Your task to perform on an android device: Show me productivity apps on the Play Store Image 0: 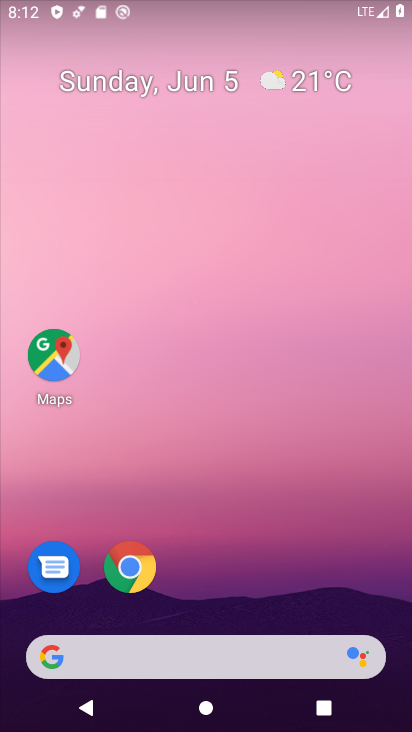
Step 0: drag from (207, 630) to (207, 327)
Your task to perform on an android device: Show me productivity apps on the Play Store Image 1: 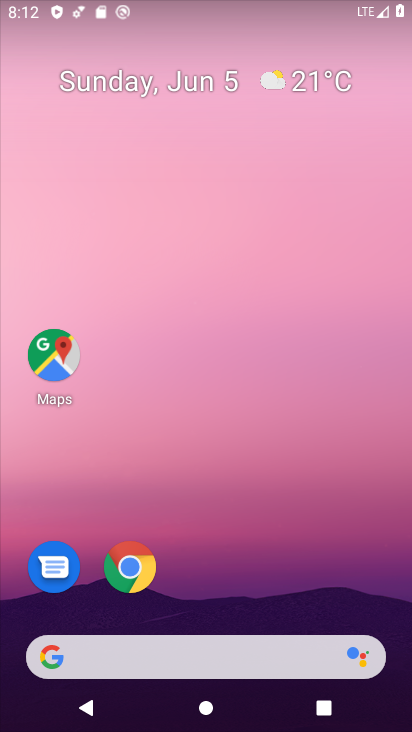
Step 1: drag from (206, 635) to (211, 258)
Your task to perform on an android device: Show me productivity apps on the Play Store Image 2: 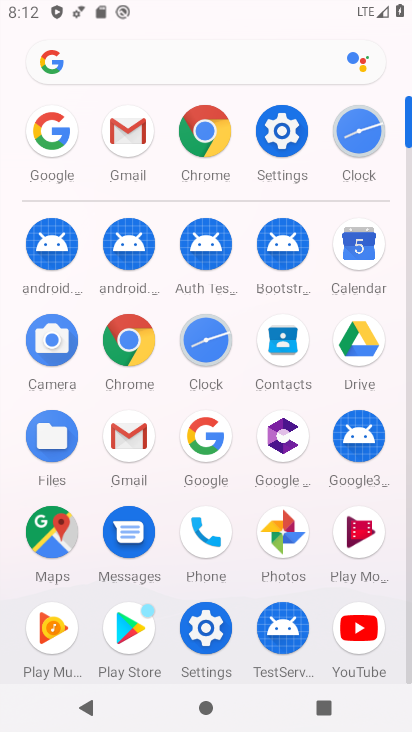
Step 2: click (132, 634)
Your task to perform on an android device: Show me productivity apps on the Play Store Image 3: 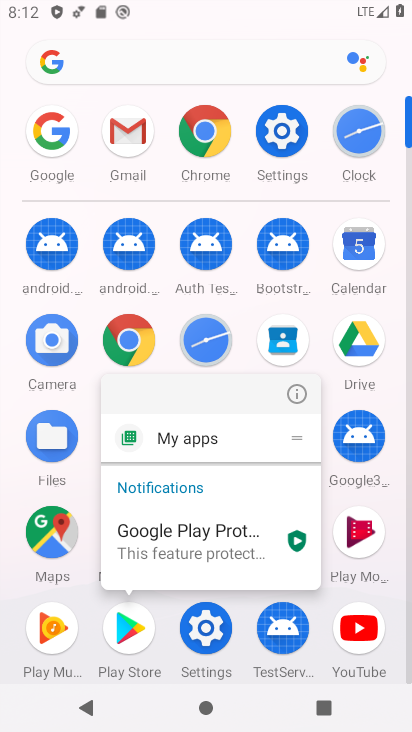
Step 3: click (132, 634)
Your task to perform on an android device: Show me productivity apps on the Play Store Image 4: 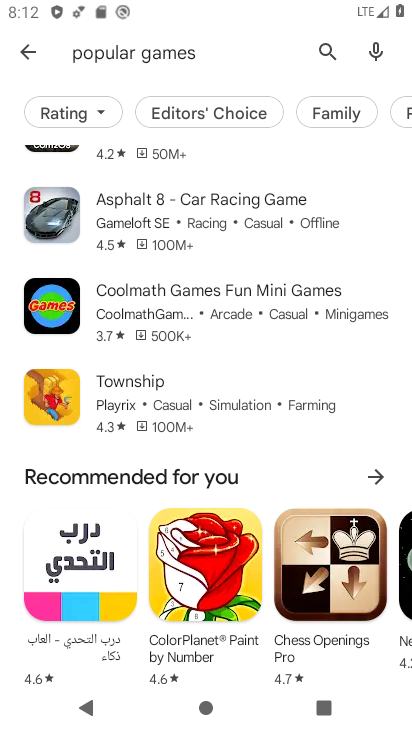
Step 4: drag from (142, 577) to (173, 269)
Your task to perform on an android device: Show me productivity apps on the Play Store Image 5: 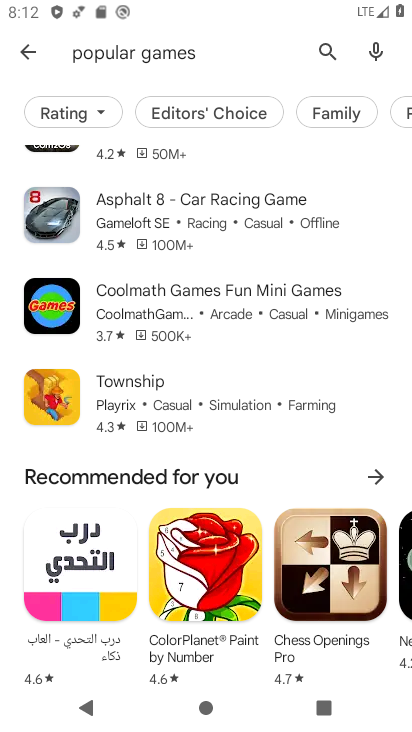
Step 5: click (29, 48)
Your task to perform on an android device: Show me productivity apps on the Play Store Image 6: 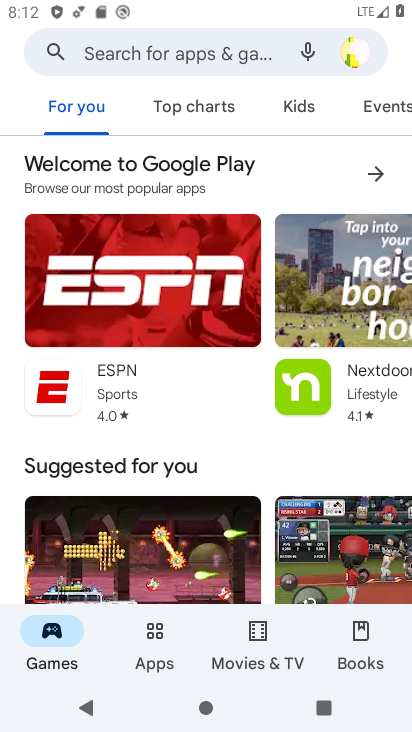
Step 6: click (150, 637)
Your task to perform on an android device: Show me productivity apps on the Play Store Image 7: 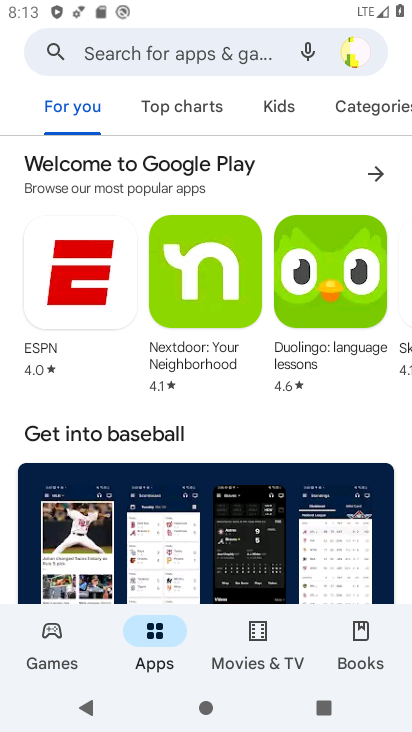
Step 7: task complete